Your task to perform on an android device: search for starred emails in the gmail app Image 0: 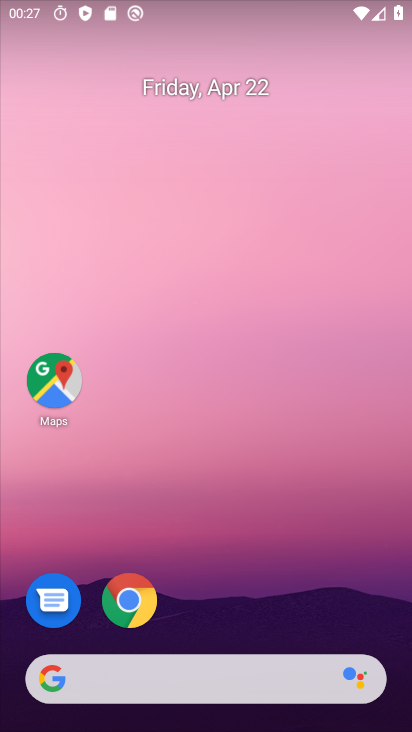
Step 0: drag from (202, 594) to (249, 132)
Your task to perform on an android device: search for starred emails in the gmail app Image 1: 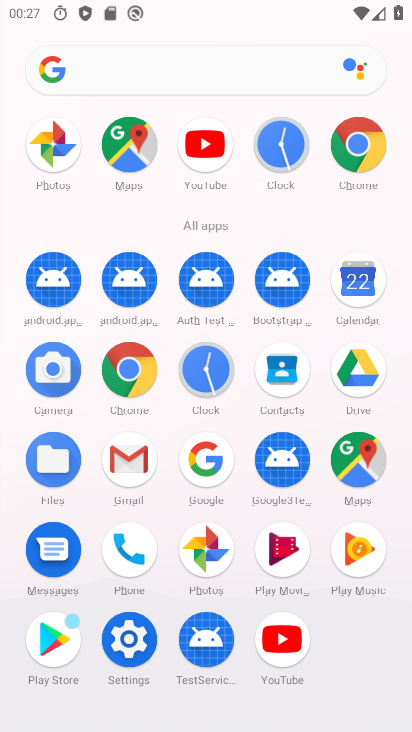
Step 1: click (127, 456)
Your task to perform on an android device: search for starred emails in the gmail app Image 2: 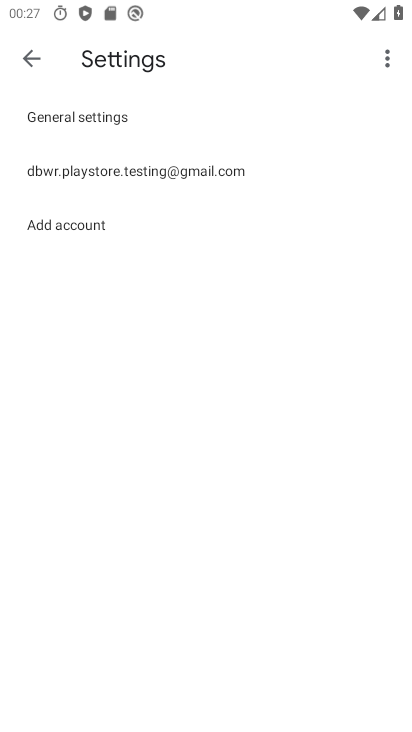
Step 2: click (25, 64)
Your task to perform on an android device: search for starred emails in the gmail app Image 3: 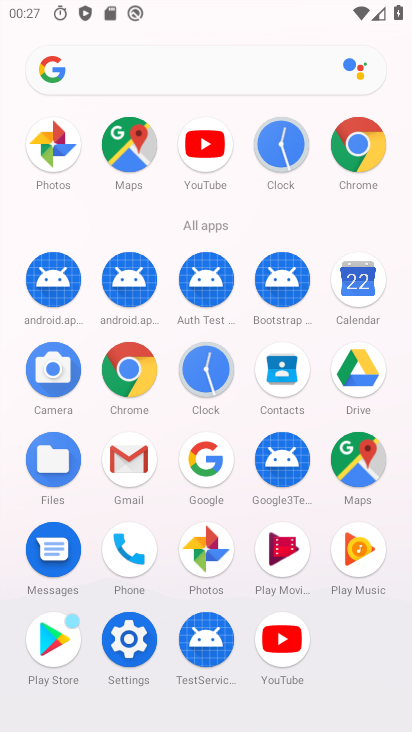
Step 3: click (130, 464)
Your task to perform on an android device: search for starred emails in the gmail app Image 4: 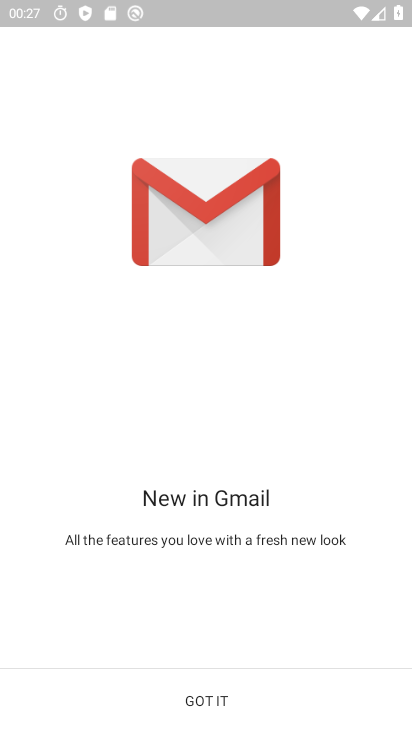
Step 4: click (212, 694)
Your task to perform on an android device: search for starred emails in the gmail app Image 5: 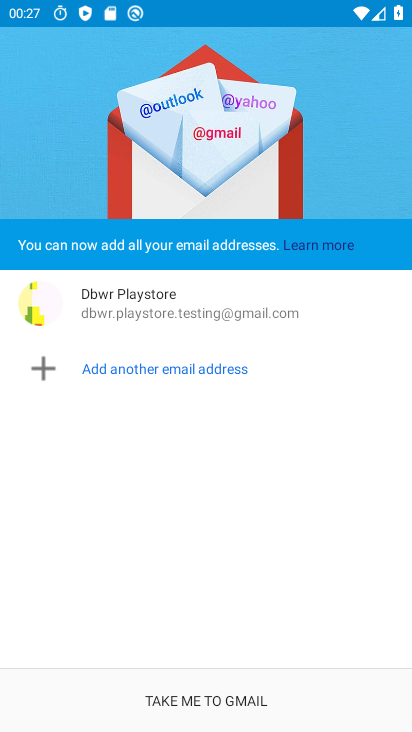
Step 5: click (212, 694)
Your task to perform on an android device: search for starred emails in the gmail app Image 6: 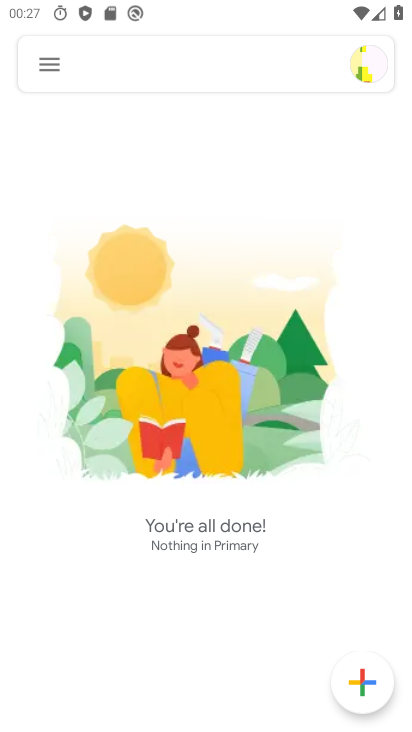
Step 6: task complete